Your task to perform on an android device: Clear all items from cart on ebay.com. Add logitech g pro to the cart on ebay.com, then select checkout. Image 0: 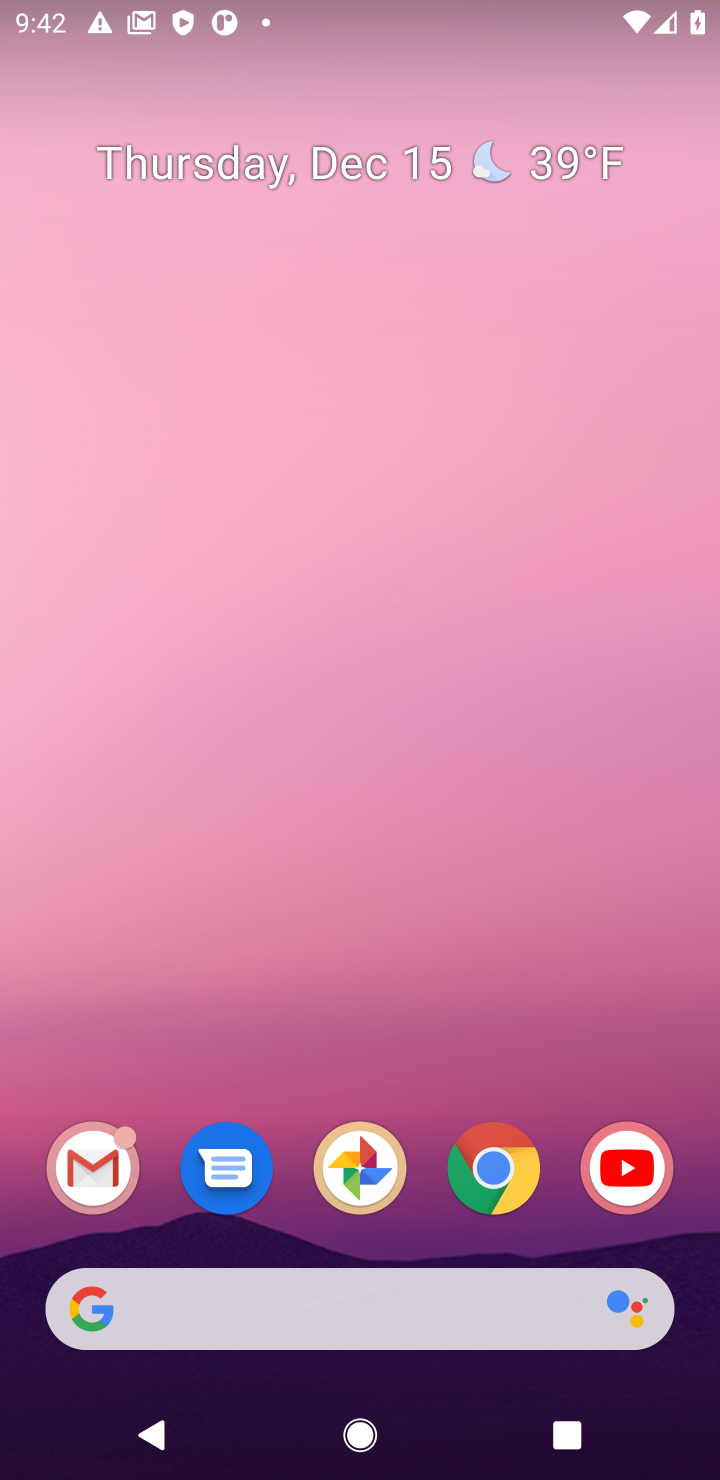
Step 0: click (504, 1171)
Your task to perform on an android device: Clear all items from cart on ebay.com. Add logitech g pro to the cart on ebay.com, then select checkout. Image 1: 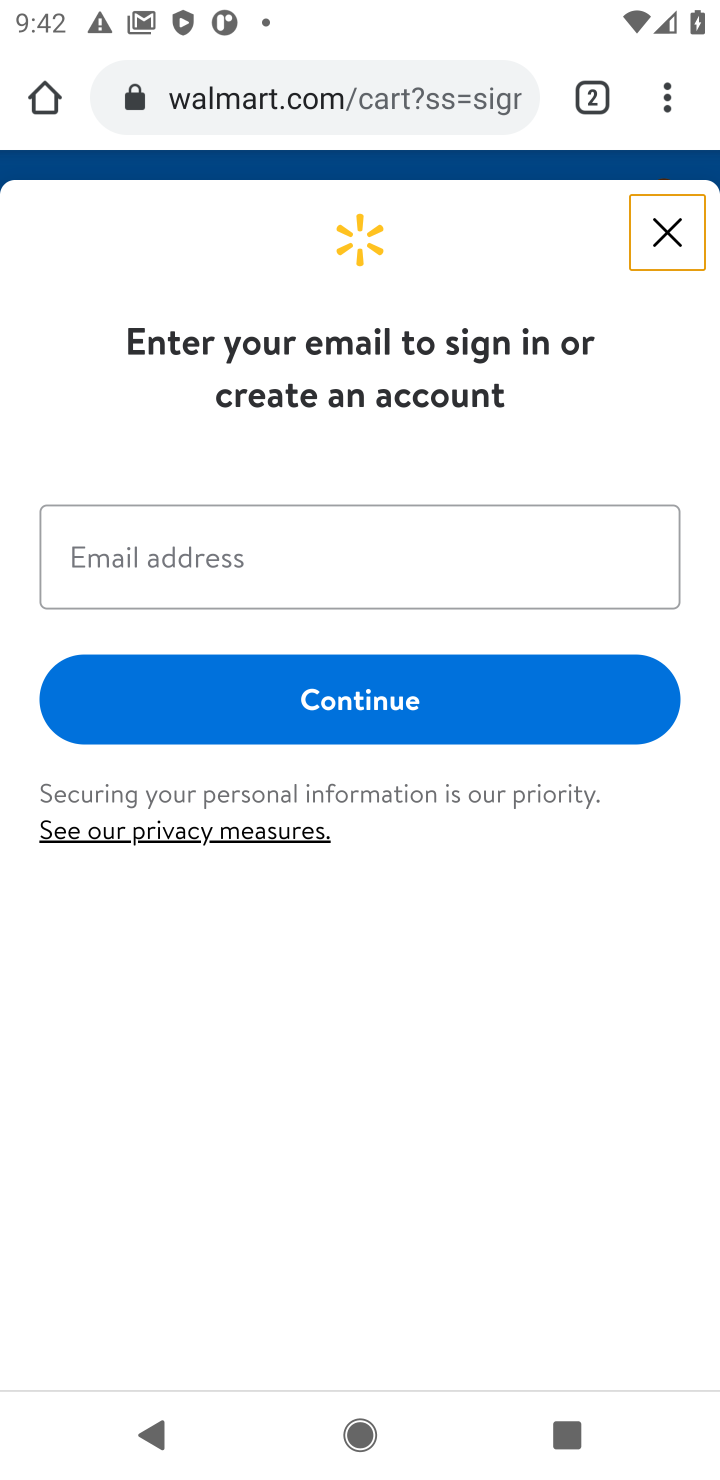
Step 1: click (362, 94)
Your task to perform on an android device: Clear all items from cart on ebay.com. Add logitech g pro to the cart on ebay.com, then select checkout. Image 2: 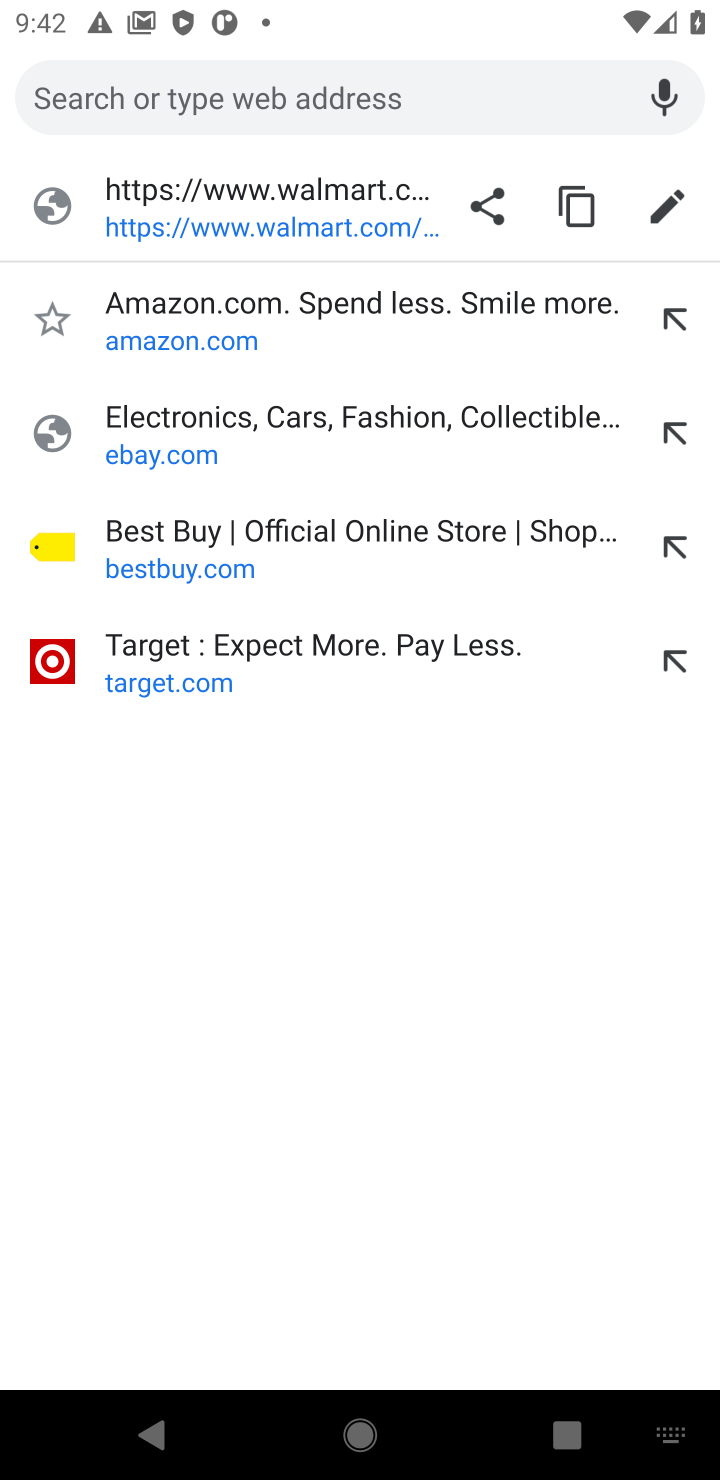
Step 2: click (209, 463)
Your task to perform on an android device: Clear all items from cart on ebay.com. Add logitech g pro to the cart on ebay.com, then select checkout. Image 3: 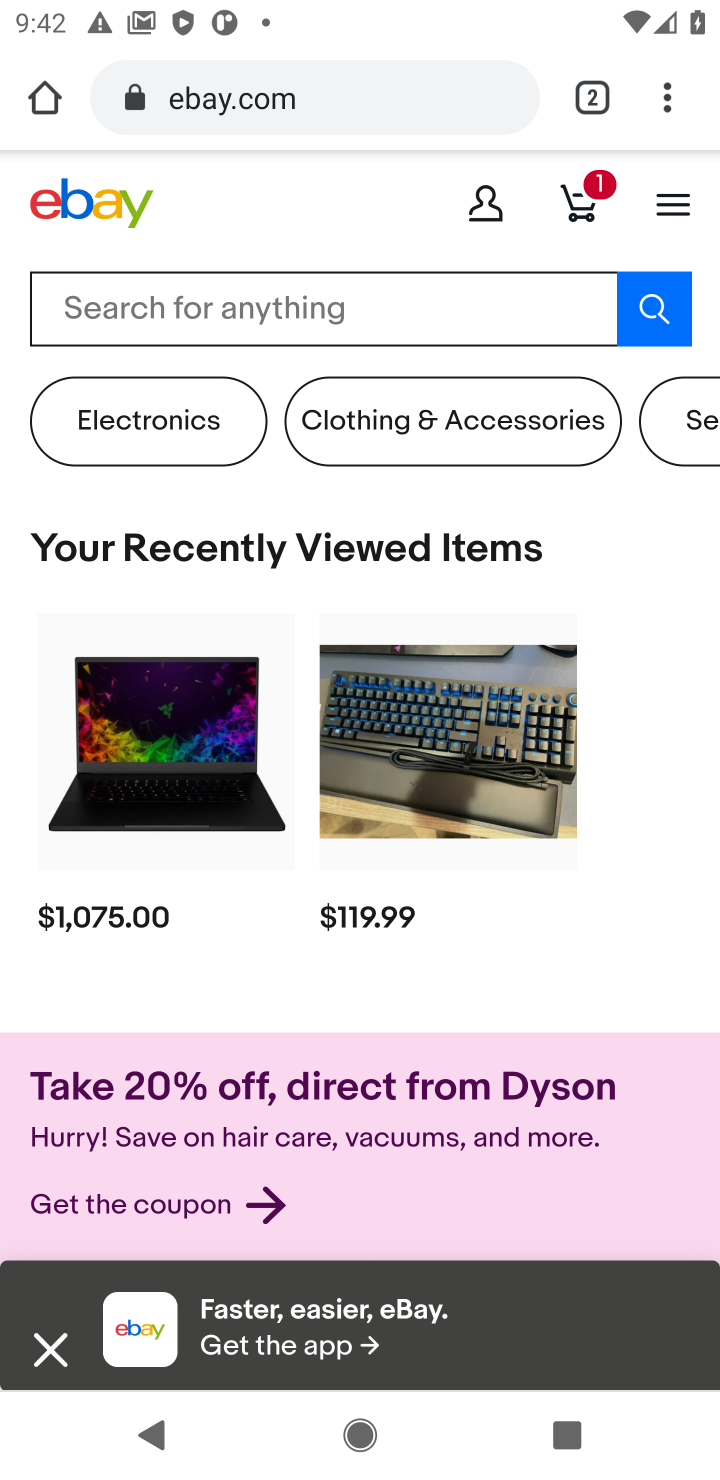
Step 3: click (581, 195)
Your task to perform on an android device: Clear all items from cart on ebay.com. Add logitech g pro to the cart on ebay.com, then select checkout. Image 4: 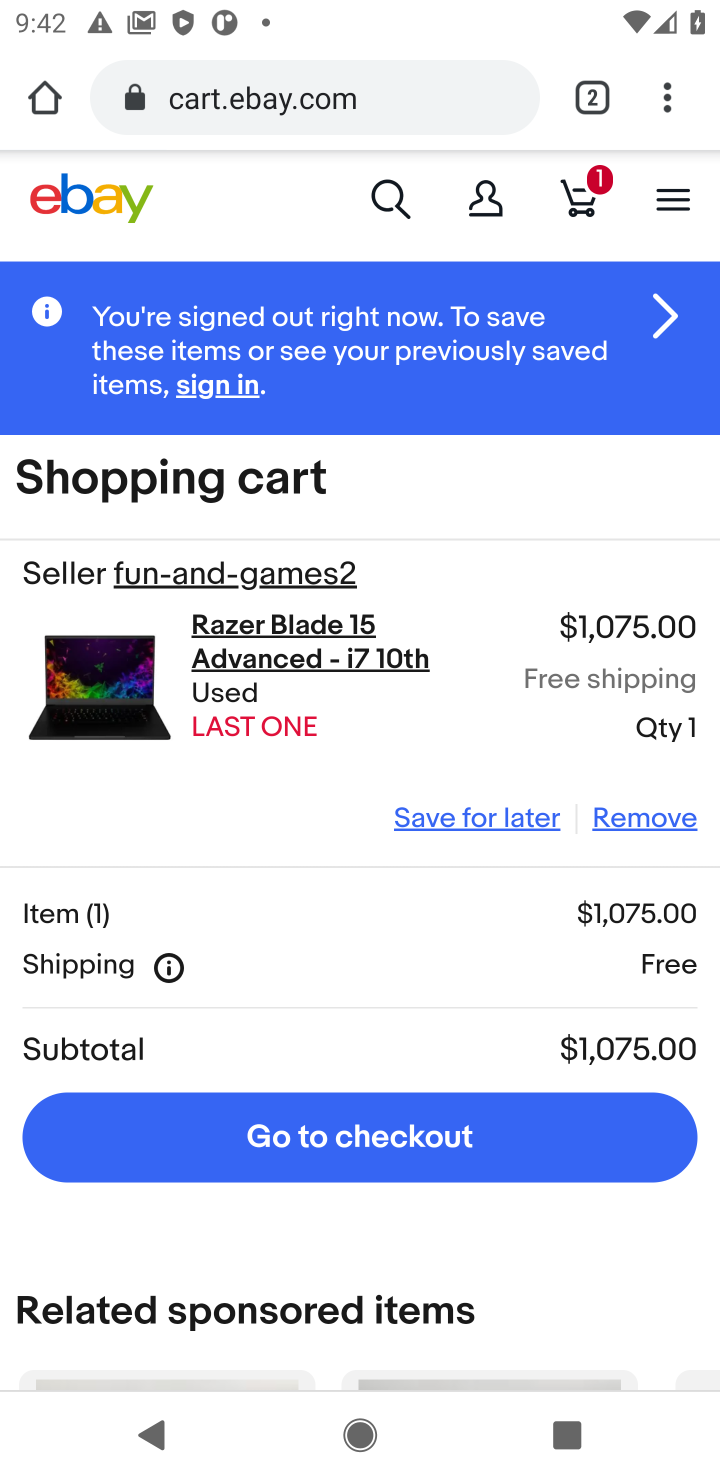
Step 4: click (630, 818)
Your task to perform on an android device: Clear all items from cart on ebay.com. Add logitech g pro to the cart on ebay.com, then select checkout. Image 5: 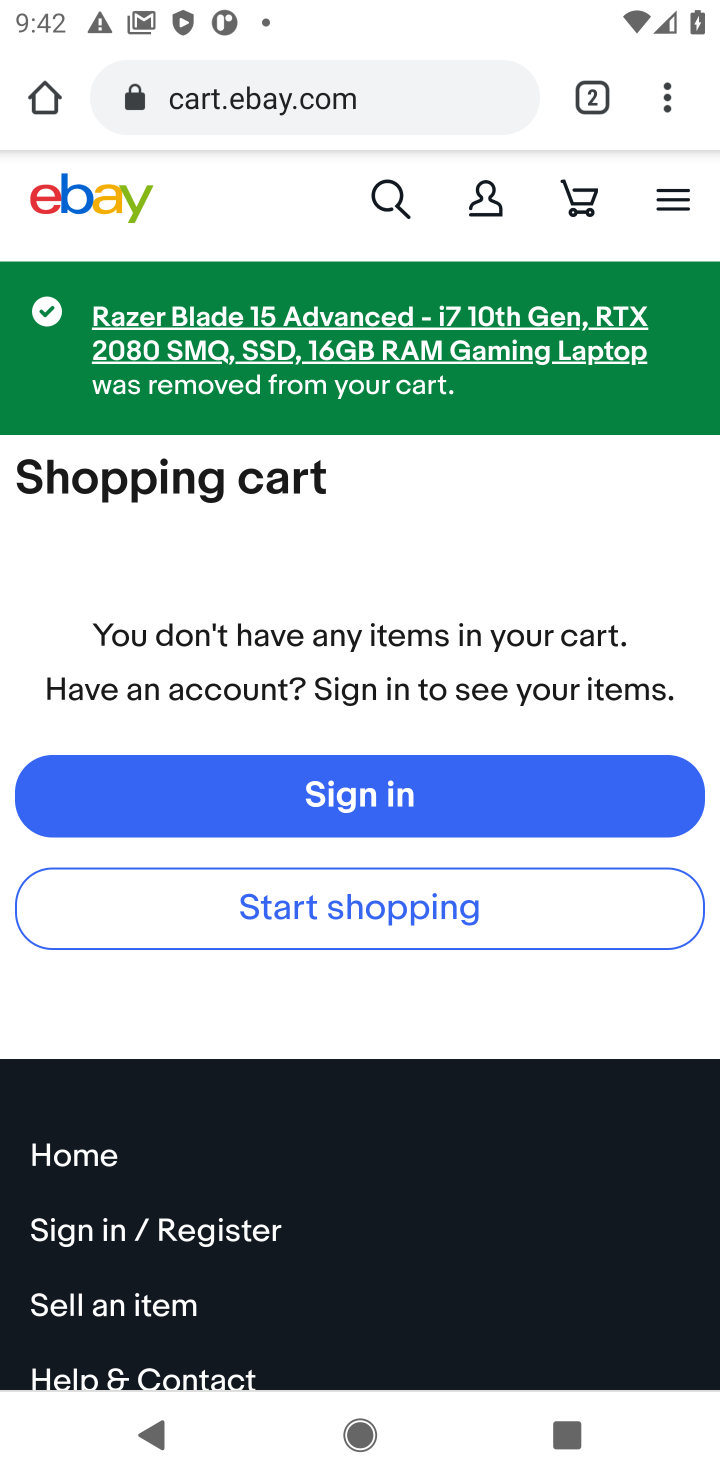
Step 5: click (383, 189)
Your task to perform on an android device: Clear all items from cart on ebay.com. Add logitech g pro to the cart on ebay.com, then select checkout. Image 6: 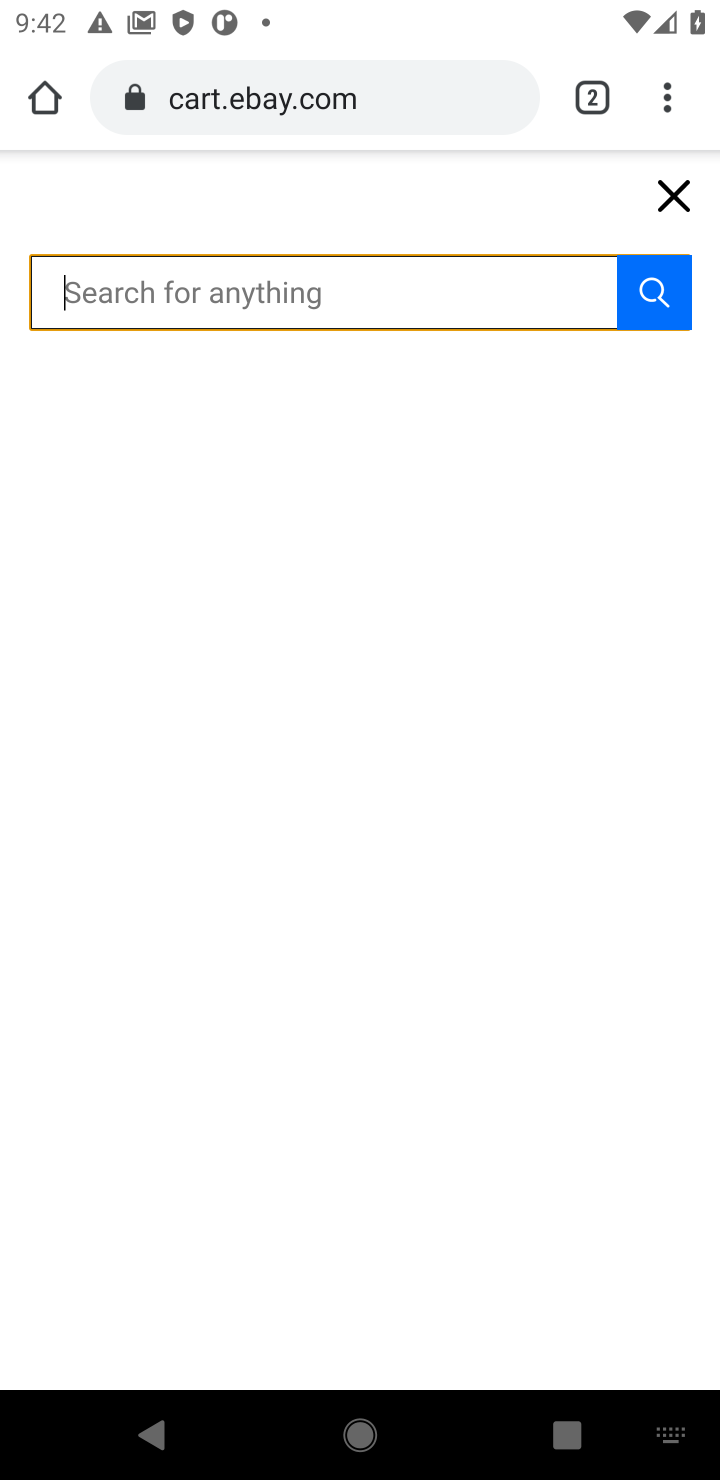
Step 6: type "logitech g pro "
Your task to perform on an android device: Clear all items from cart on ebay.com. Add logitech g pro to the cart on ebay.com, then select checkout. Image 7: 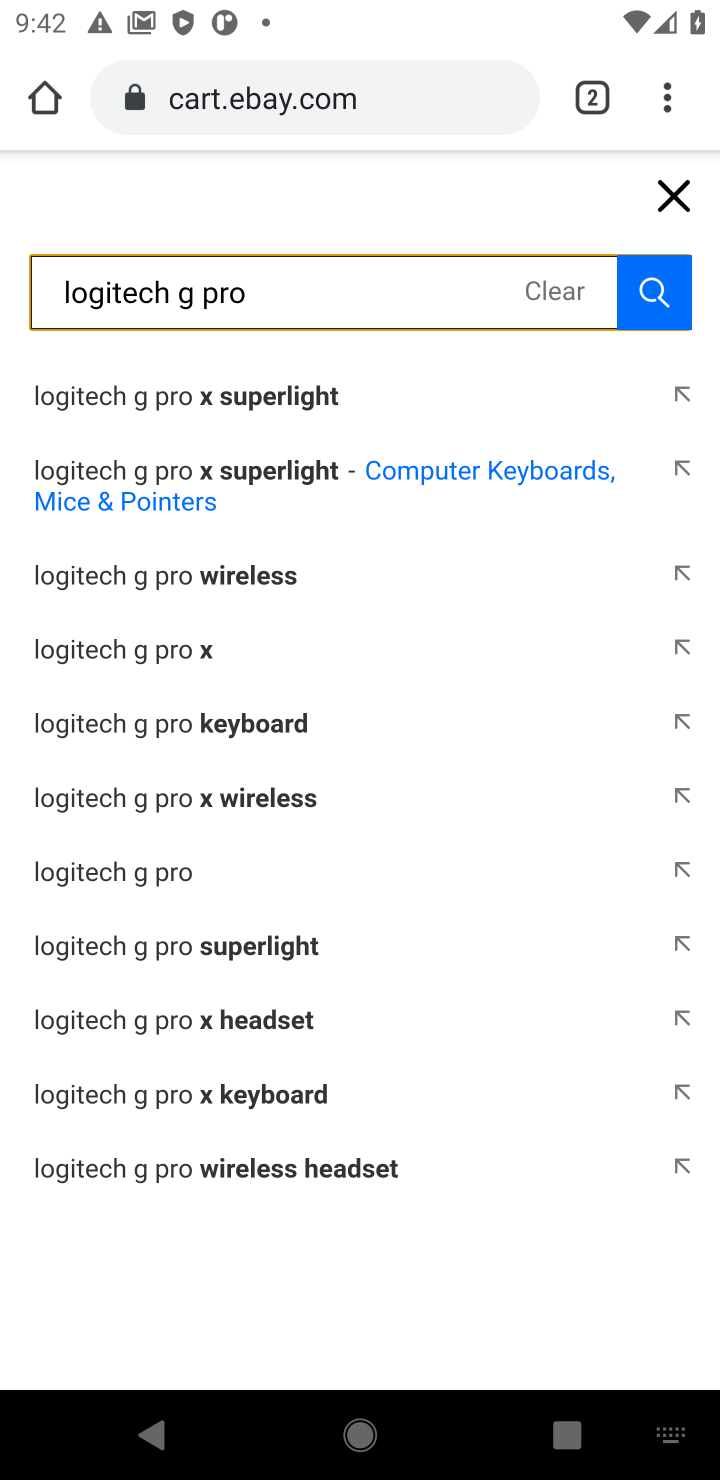
Step 7: click (235, 395)
Your task to perform on an android device: Clear all items from cart on ebay.com. Add logitech g pro to the cart on ebay.com, then select checkout. Image 8: 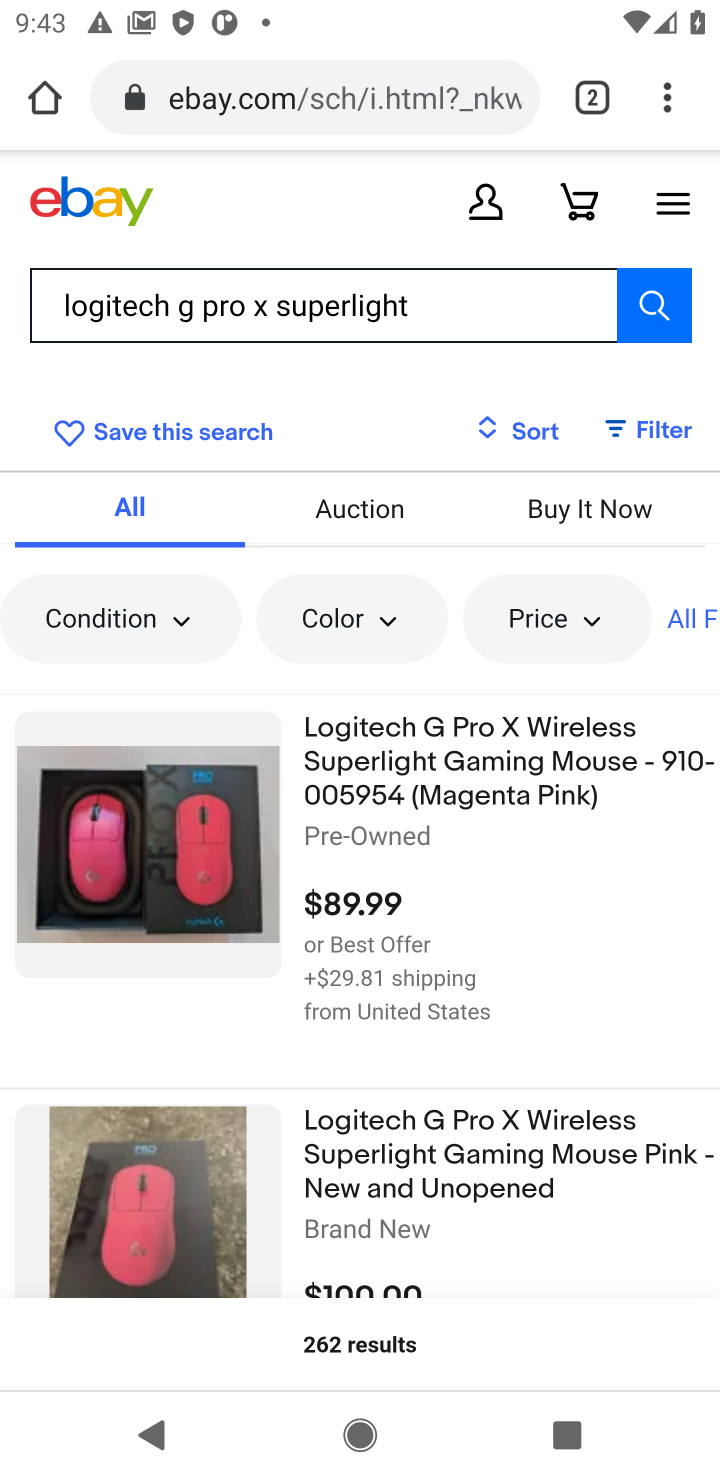
Step 8: click (535, 813)
Your task to perform on an android device: Clear all items from cart on ebay.com. Add logitech g pro to the cart on ebay.com, then select checkout. Image 9: 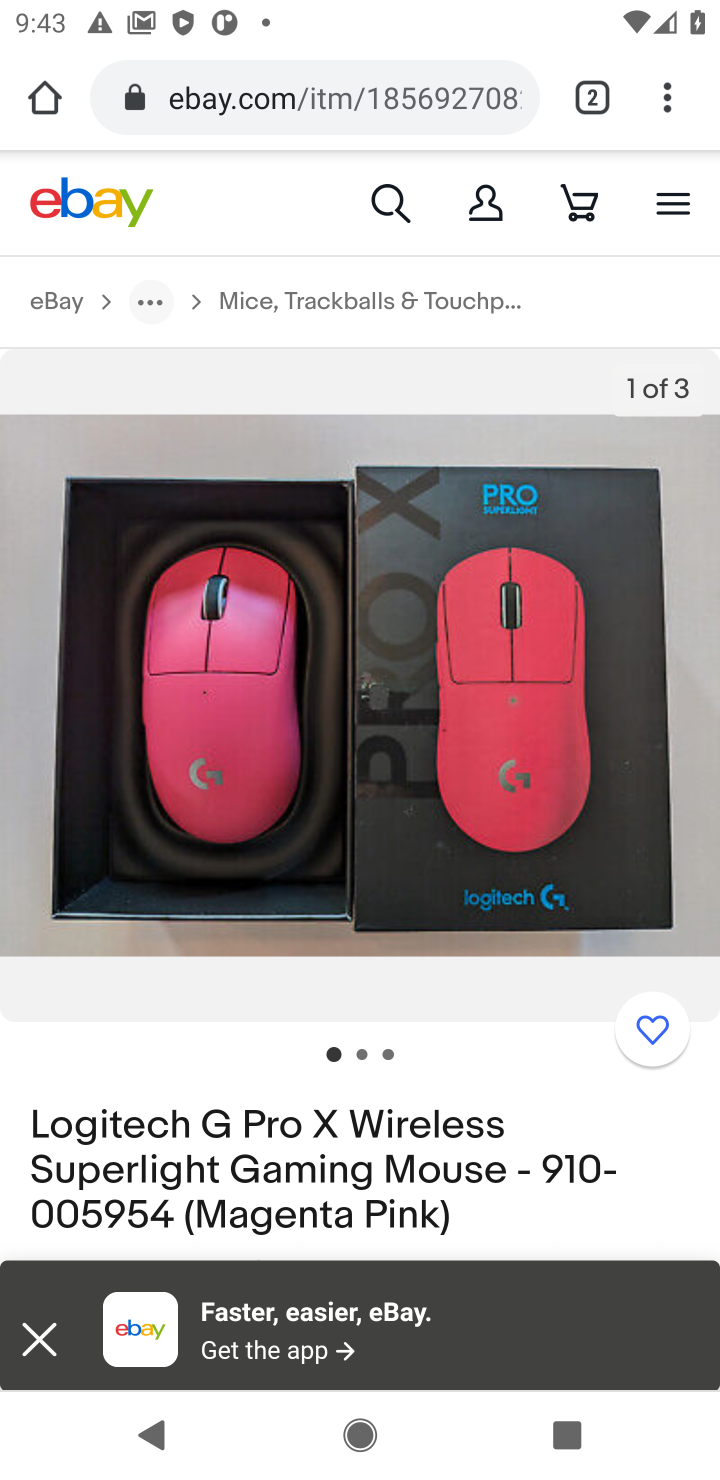
Step 9: drag from (568, 1267) to (485, 594)
Your task to perform on an android device: Clear all items from cart on ebay.com. Add logitech g pro to the cart on ebay.com, then select checkout. Image 10: 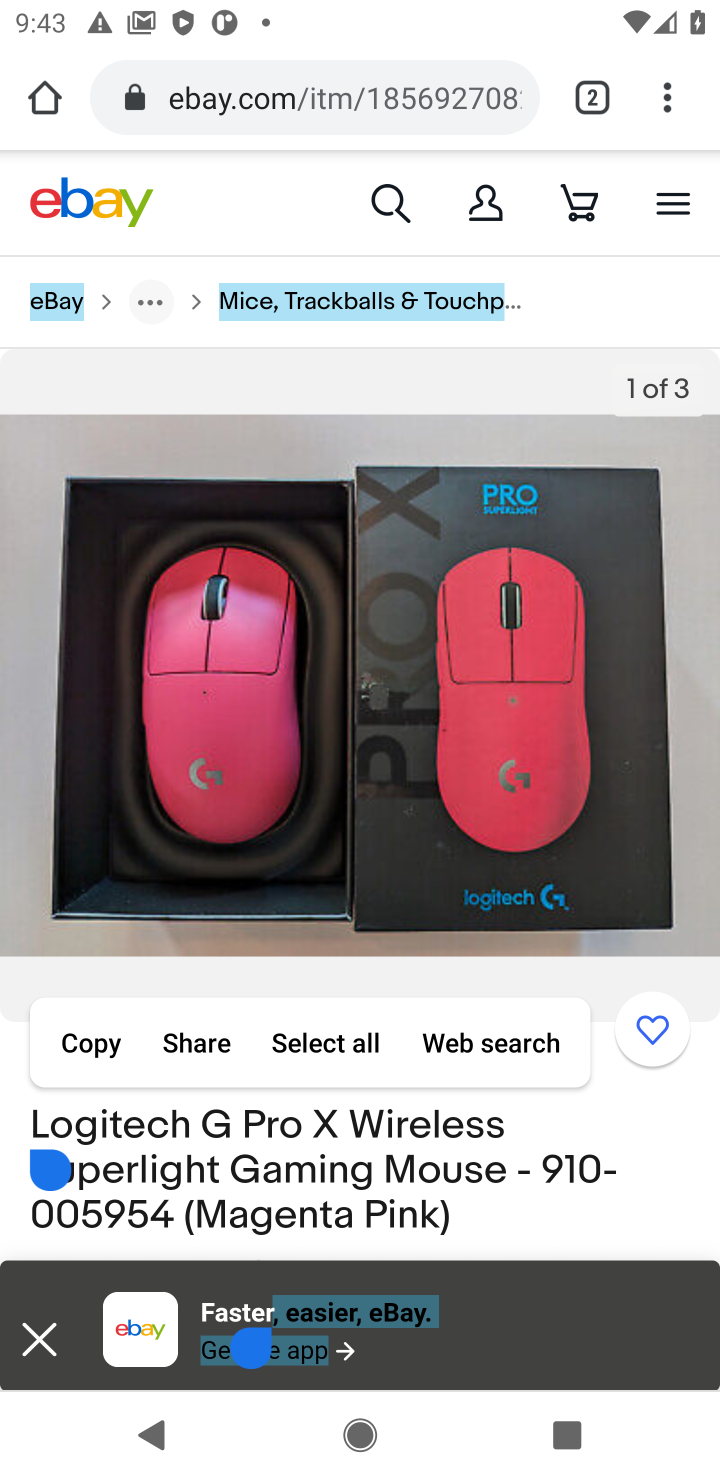
Step 10: click (590, 1176)
Your task to perform on an android device: Clear all items from cart on ebay.com. Add logitech g pro to the cart on ebay.com, then select checkout. Image 11: 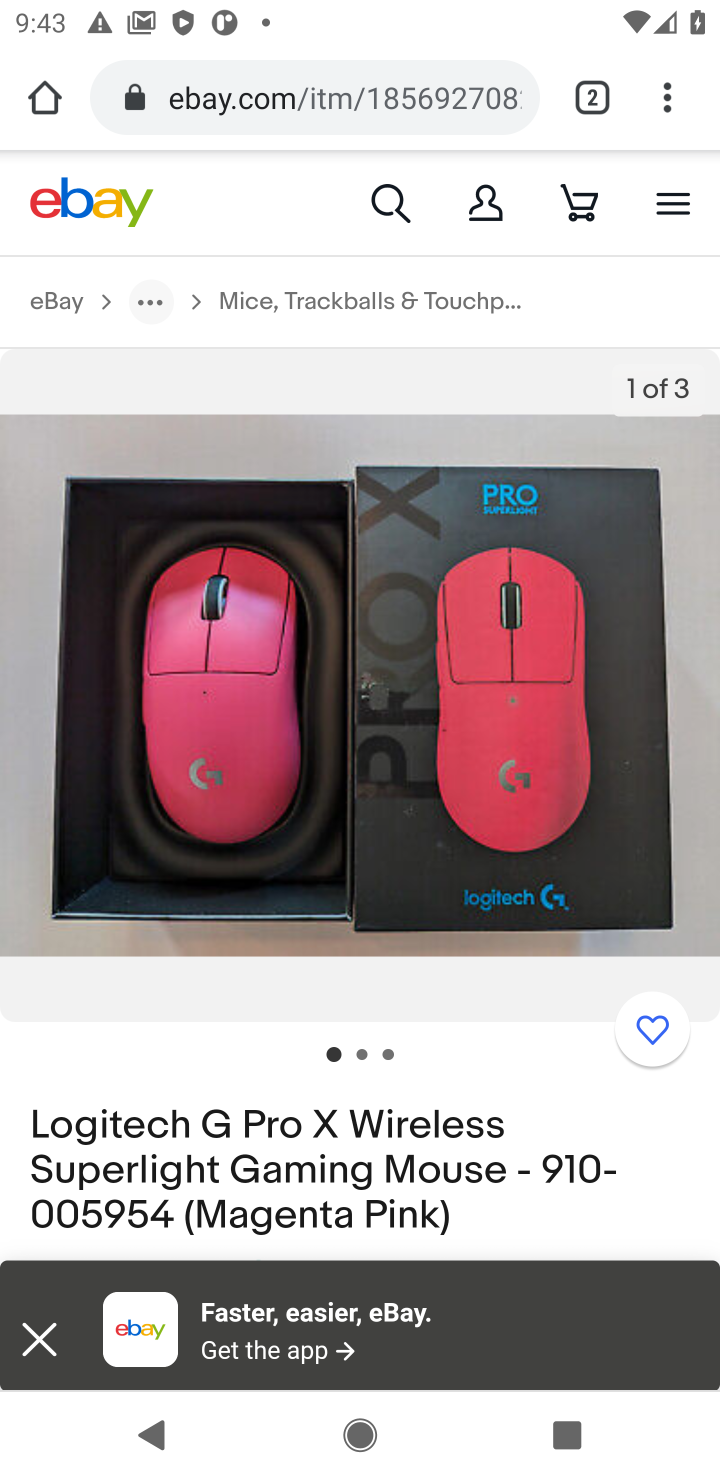
Step 11: drag from (503, 1192) to (364, 200)
Your task to perform on an android device: Clear all items from cart on ebay.com. Add logitech g pro to the cart on ebay.com, then select checkout. Image 12: 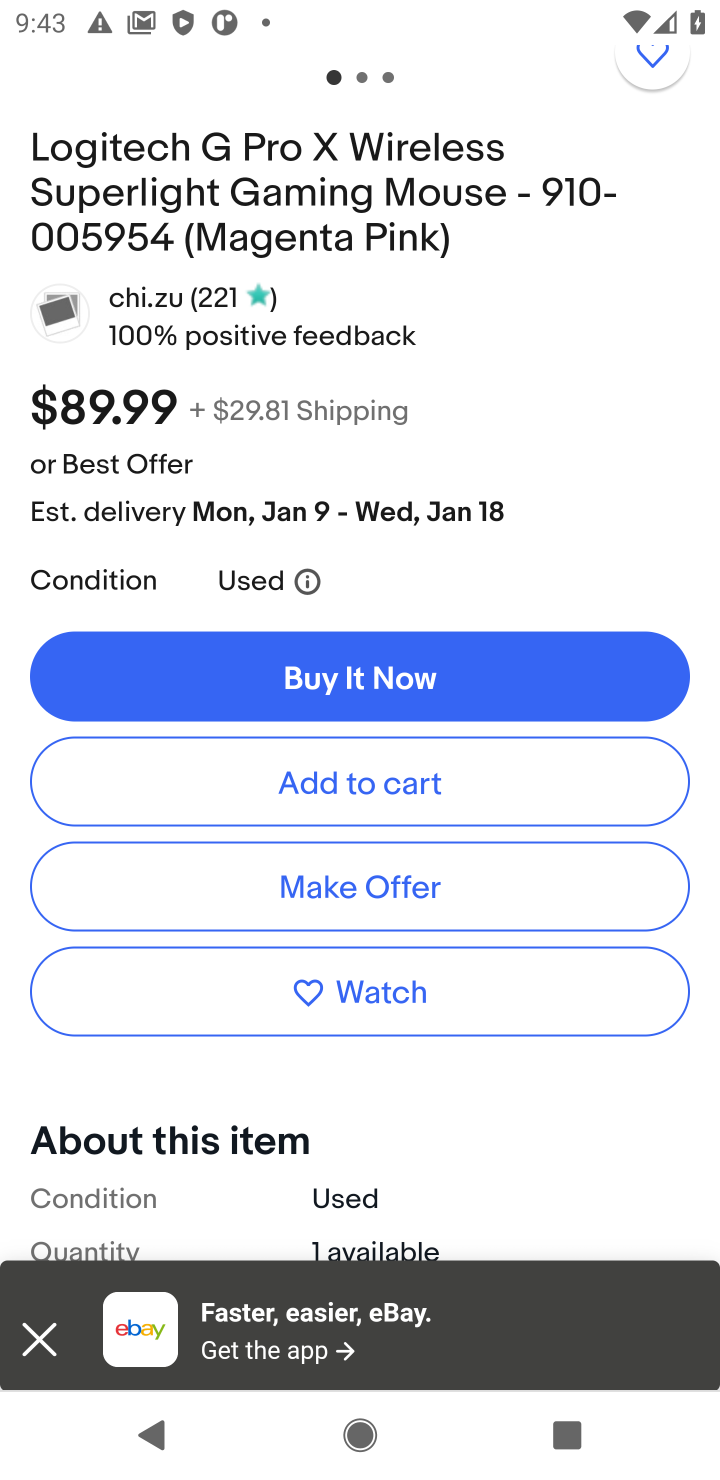
Step 12: click (343, 786)
Your task to perform on an android device: Clear all items from cart on ebay.com. Add logitech g pro to the cart on ebay.com, then select checkout. Image 13: 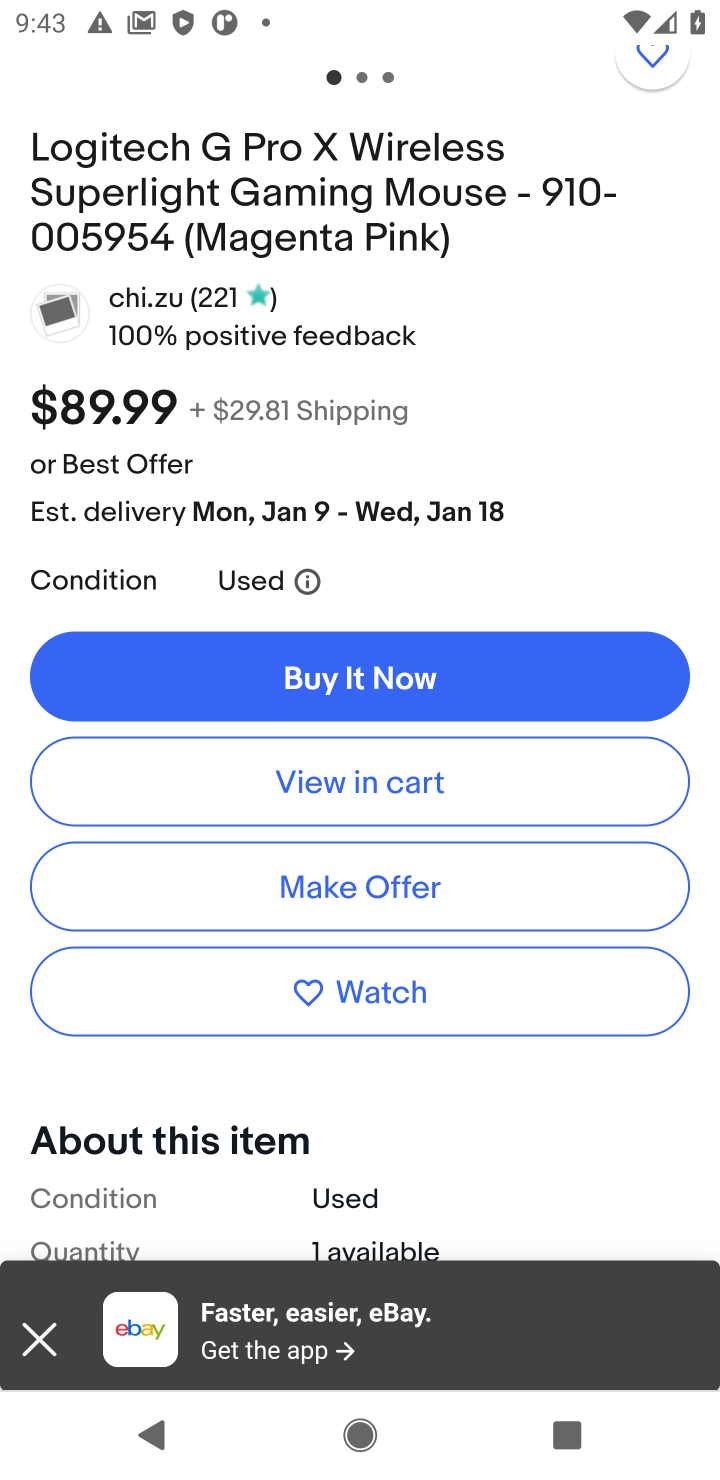
Step 13: click (343, 786)
Your task to perform on an android device: Clear all items from cart on ebay.com. Add logitech g pro to the cart on ebay.com, then select checkout. Image 14: 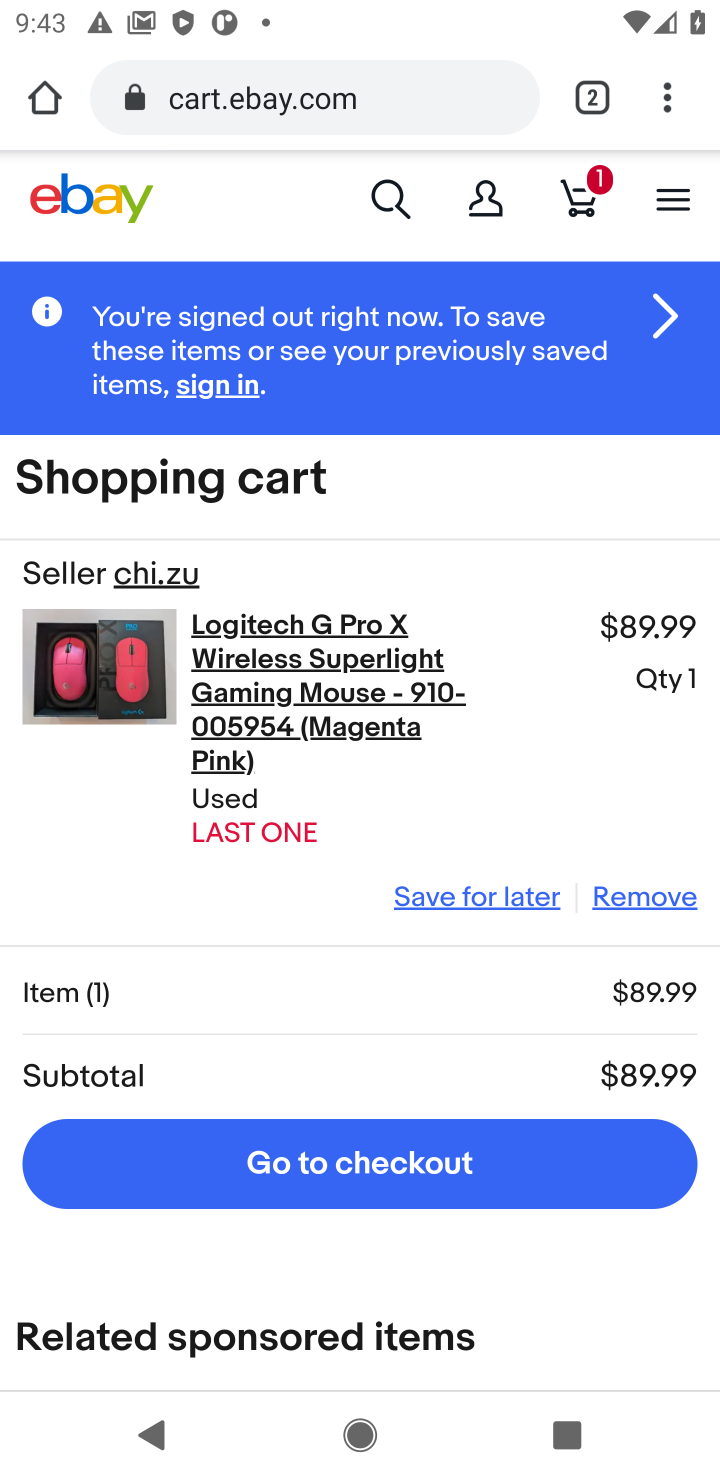
Step 14: click (388, 1161)
Your task to perform on an android device: Clear all items from cart on ebay.com. Add logitech g pro to the cart on ebay.com, then select checkout. Image 15: 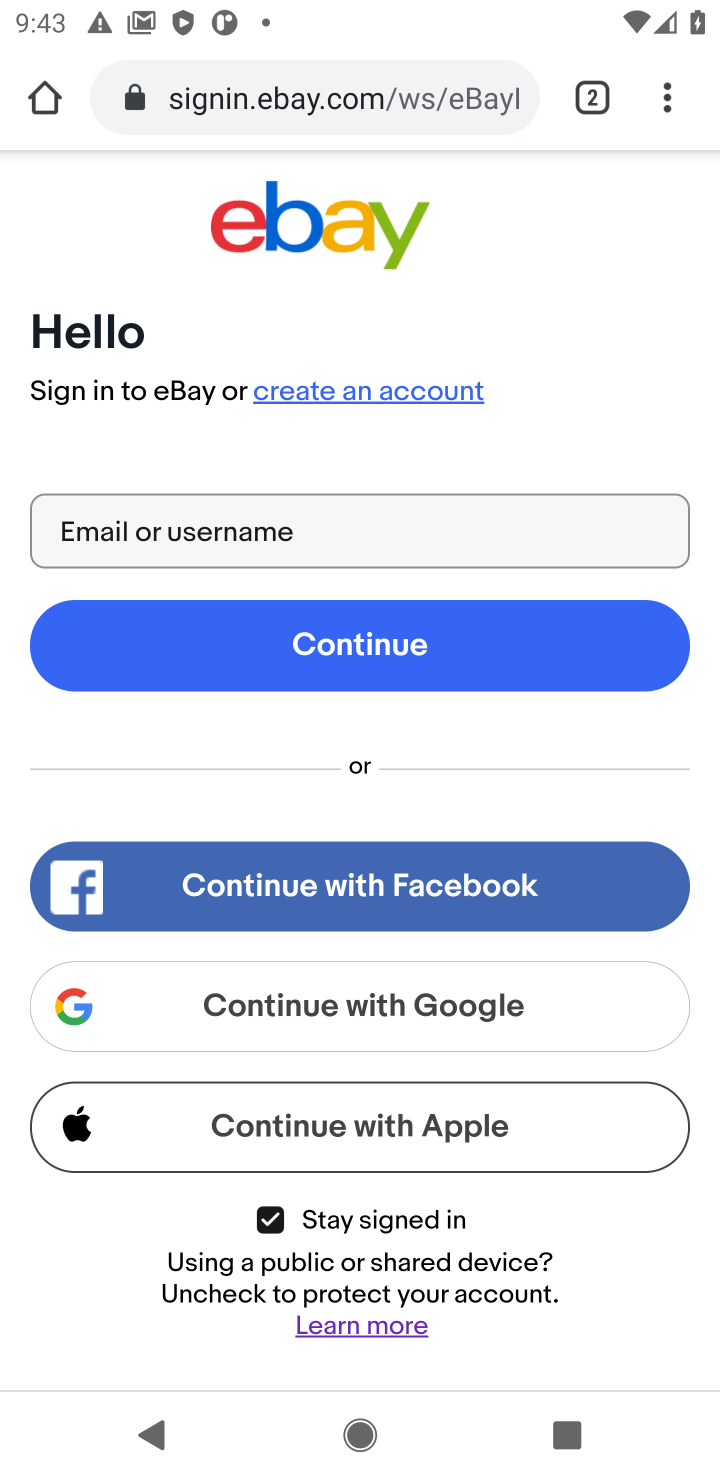
Step 15: task complete